Your task to perform on an android device: Open Youtube and go to the subscriptions tab Image 0: 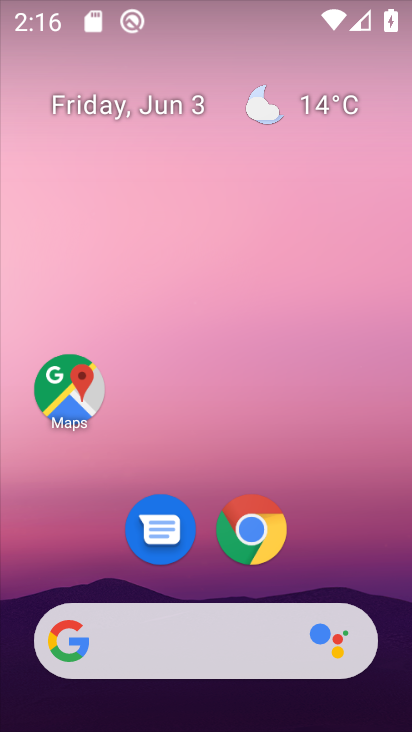
Step 0: drag from (331, 651) to (229, 23)
Your task to perform on an android device: Open Youtube and go to the subscriptions tab Image 1: 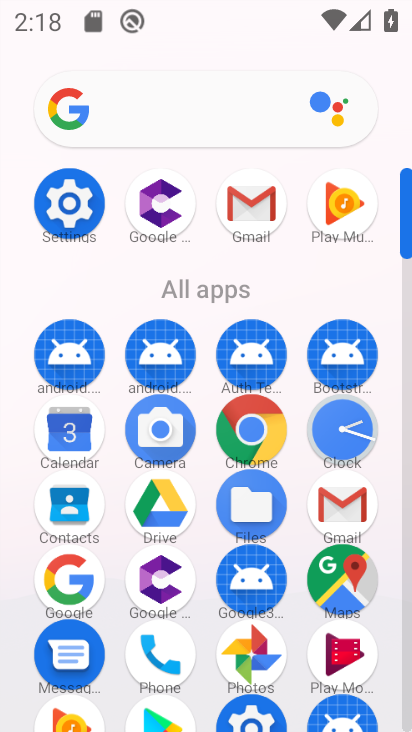
Step 1: click (269, 358)
Your task to perform on an android device: Open Youtube and go to the subscriptions tab Image 2: 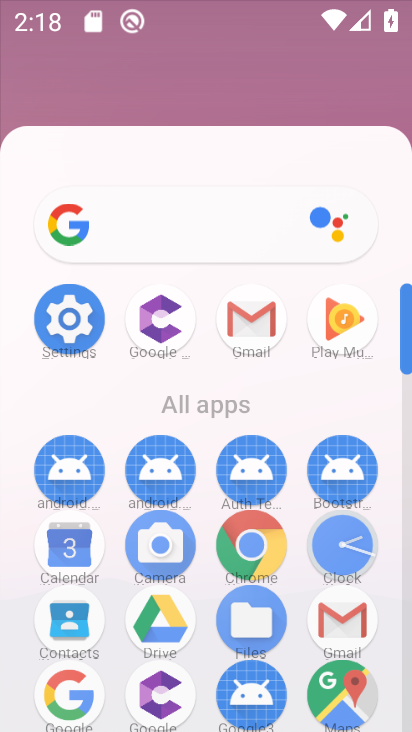
Step 2: drag from (285, 502) to (281, 247)
Your task to perform on an android device: Open Youtube and go to the subscriptions tab Image 3: 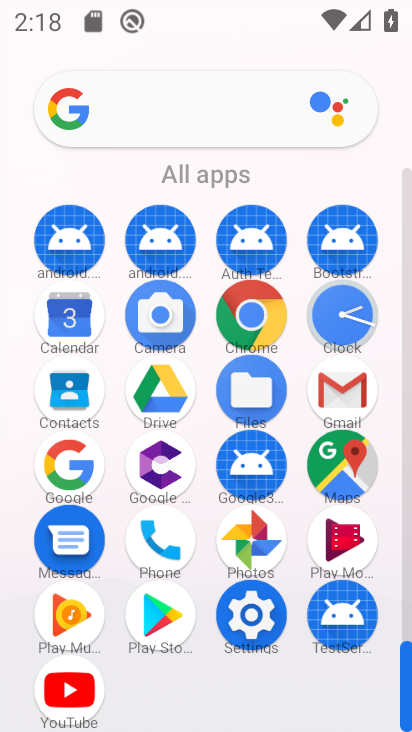
Step 3: drag from (258, 565) to (222, 308)
Your task to perform on an android device: Open Youtube and go to the subscriptions tab Image 4: 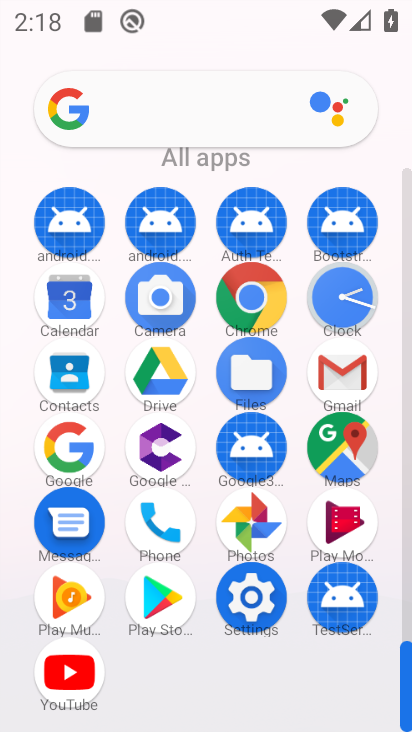
Step 4: drag from (266, 562) to (261, 288)
Your task to perform on an android device: Open Youtube and go to the subscriptions tab Image 5: 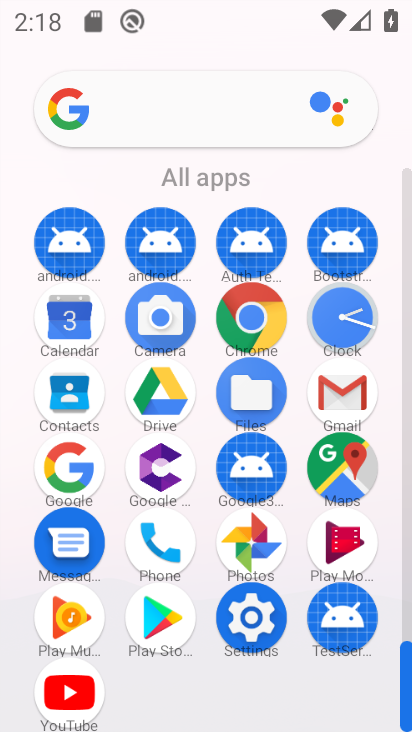
Step 5: click (60, 688)
Your task to perform on an android device: Open Youtube and go to the subscriptions tab Image 6: 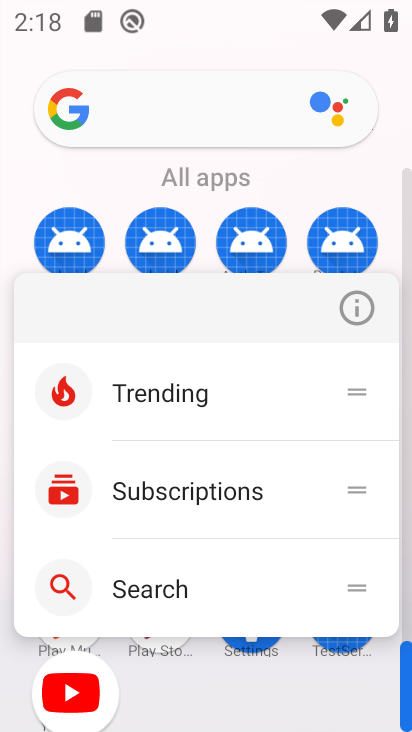
Step 6: click (69, 690)
Your task to perform on an android device: Open Youtube and go to the subscriptions tab Image 7: 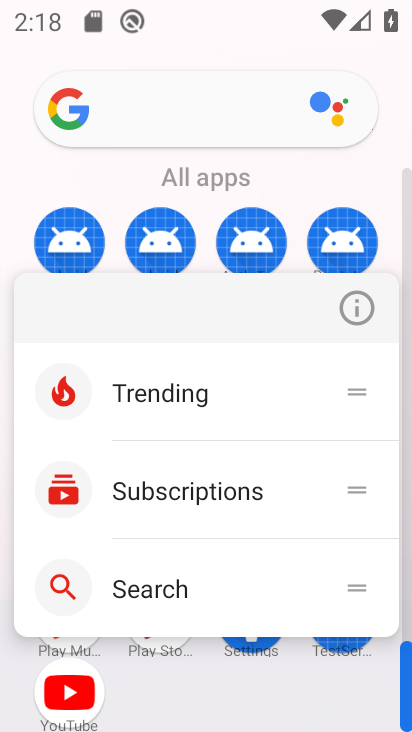
Step 7: click (70, 689)
Your task to perform on an android device: Open Youtube and go to the subscriptions tab Image 8: 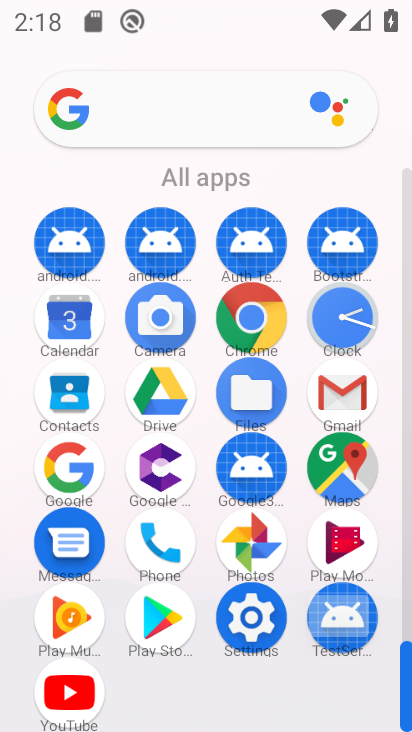
Step 8: click (72, 690)
Your task to perform on an android device: Open Youtube and go to the subscriptions tab Image 9: 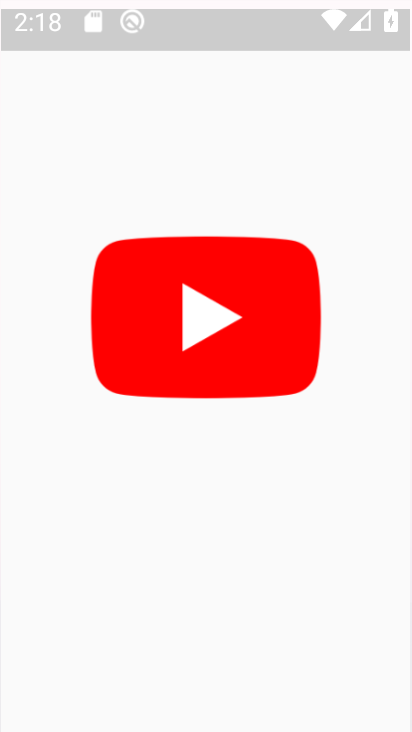
Step 9: click (76, 688)
Your task to perform on an android device: Open Youtube and go to the subscriptions tab Image 10: 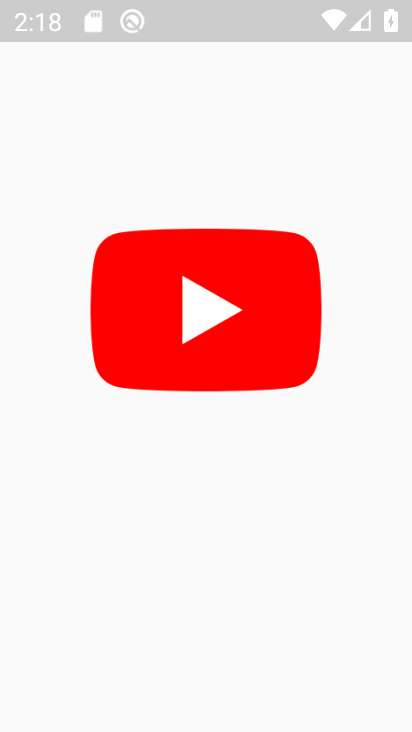
Step 10: click (76, 687)
Your task to perform on an android device: Open Youtube and go to the subscriptions tab Image 11: 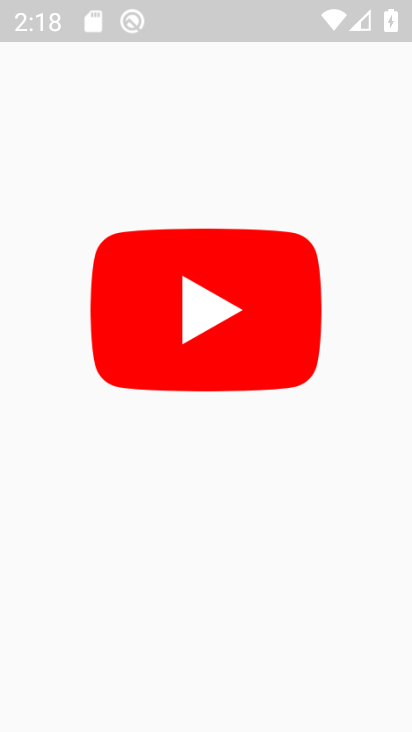
Step 11: click (73, 678)
Your task to perform on an android device: Open Youtube and go to the subscriptions tab Image 12: 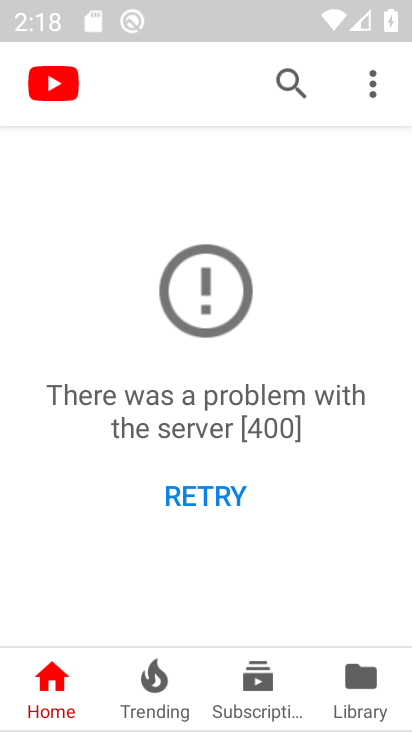
Step 12: click (253, 682)
Your task to perform on an android device: Open Youtube and go to the subscriptions tab Image 13: 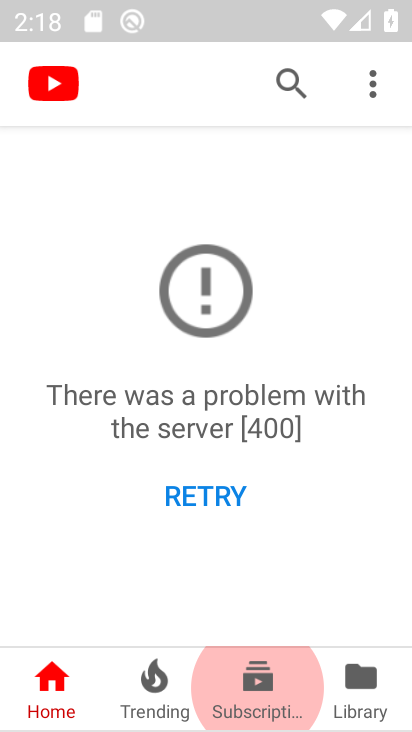
Step 13: click (254, 682)
Your task to perform on an android device: Open Youtube and go to the subscriptions tab Image 14: 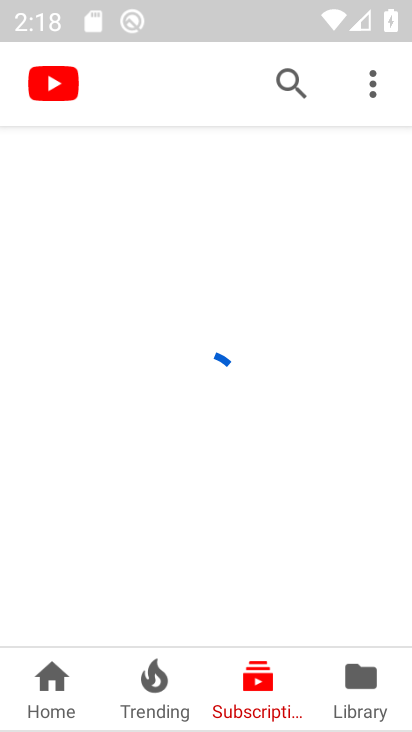
Step 14: click (254, 682)
Your task to perform on an android device: Open Youtube and go to the subscriptions tab Image 15: 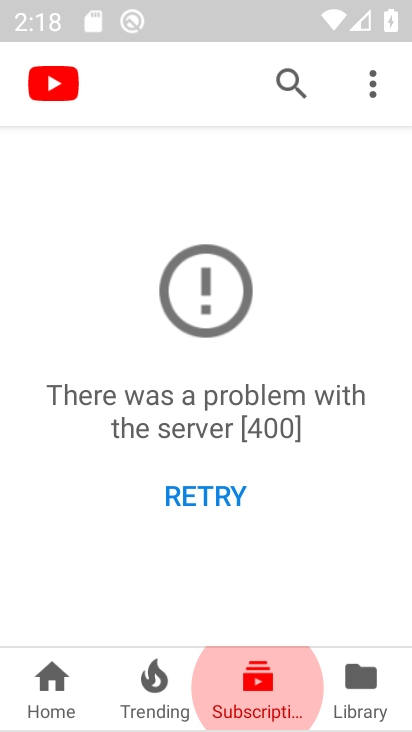
Step 15: click (255, 682)
Your task to perform on an android device: Open Youtube and go to the subscriptions tab Image 16: 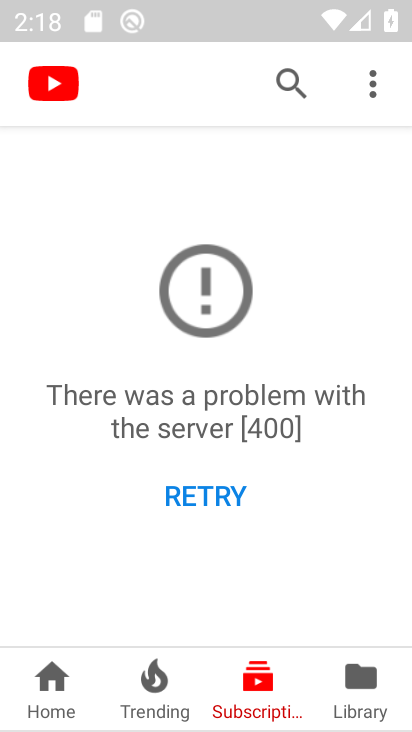
Step 16: task complete